Your task to perform on an android device: Empty the shopping cart on walmart.com. Add razer nari to the cart on walmart.com, then select checkout. Image 0: 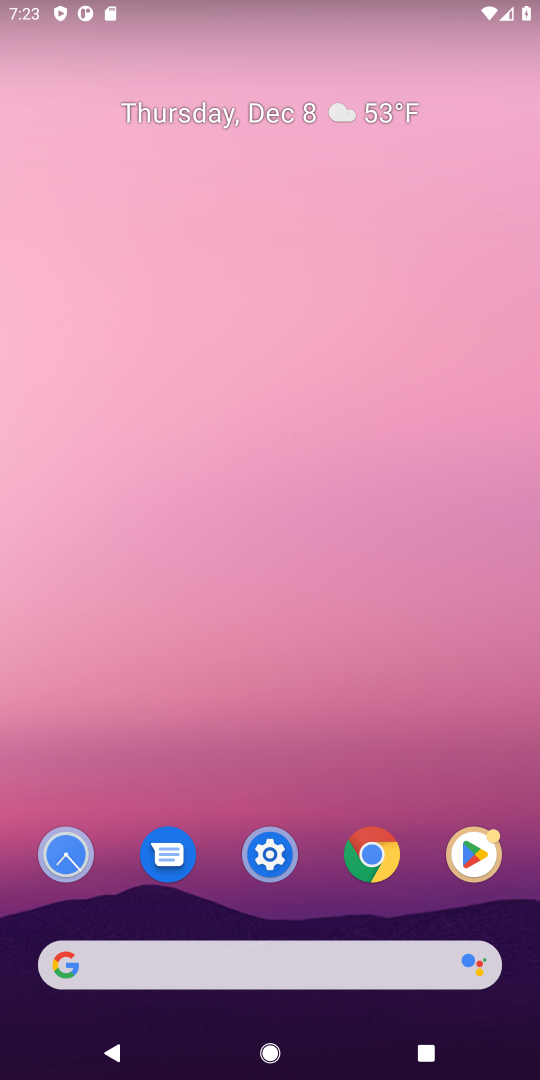
Step 0: press home button
Your task to perform on an android device: Empty the shopping cart on walmart.com. Add razer nari to the cart on walmart.com, then select checkout. Image 1: 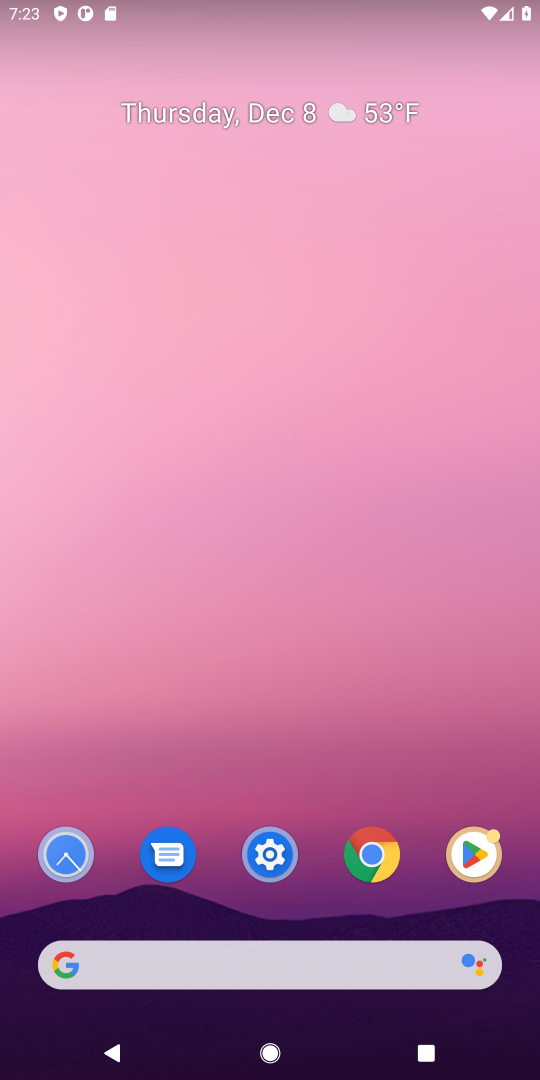
Step 1: click (93, 964)
Your task to perform on an android device: Empty the shopping cart on walmart.com. Add razer nari to the cart on walmart.com, then select checkout. Image 2: 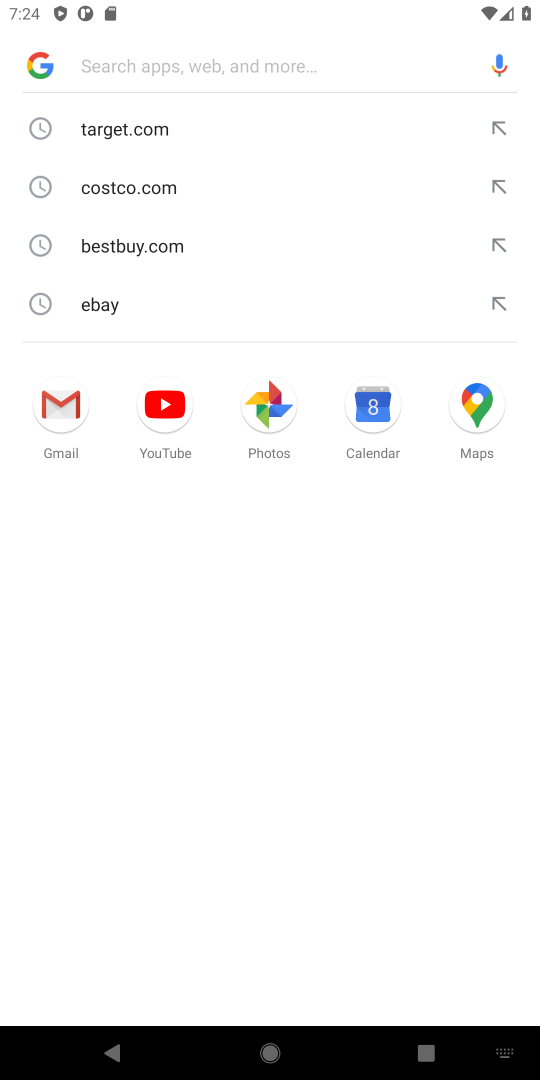
Step 2: type " walmart.com"
Your task to perform on an android device: Empty the shopping cart on walmart.com. Add razer nari to the cart on walmart.com, then select checkout. Image 3: 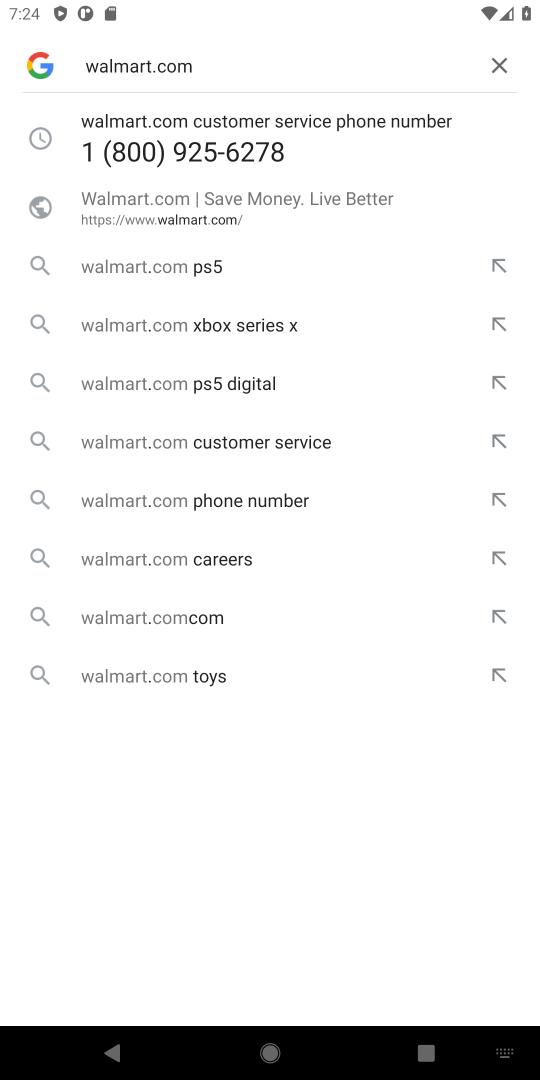
Step 3: press enter
Your task to perform on an android device: Empty the shopping cart on walmart.com. Add razer nari to the cart on walmart.com, then select checkout. Image 4: 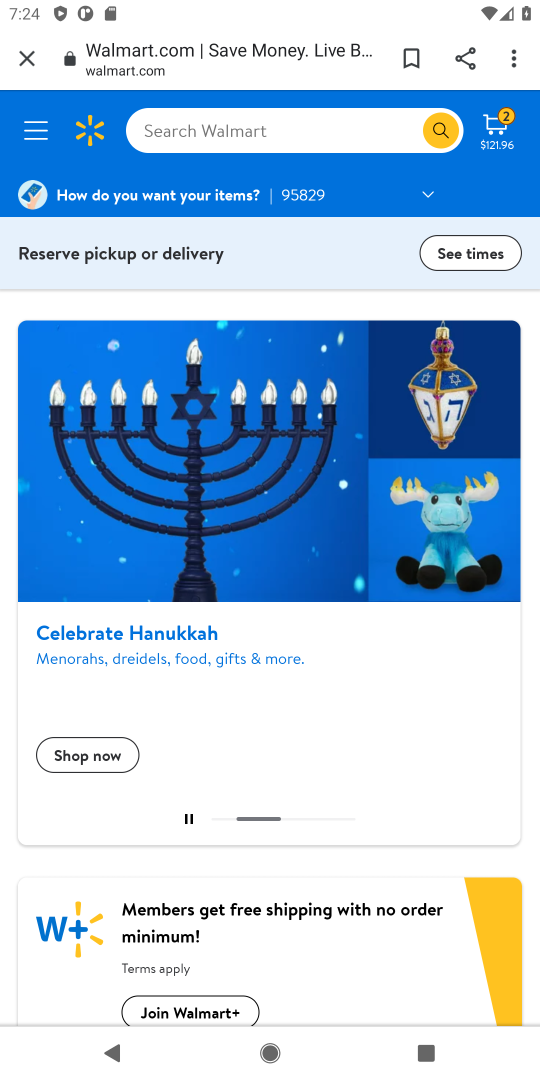
Step 4: click (483, 119)
Your task to perform on an android device: Empty the shopping cart on walmart.com. Add razer nari to the cart on walmart.com, then select checkout. Image 5: 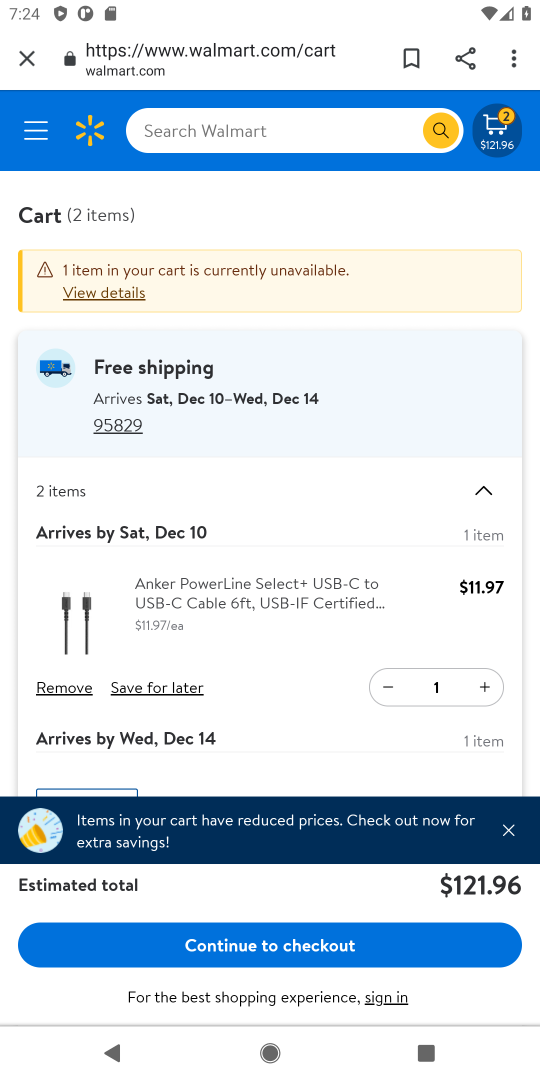
Step 5: click (49, 688)
Your task to perform on an android device: Empty the shopping cart on walmart.com. Add razer nari to the cart on walmart.com, then select checkout. Image 6: 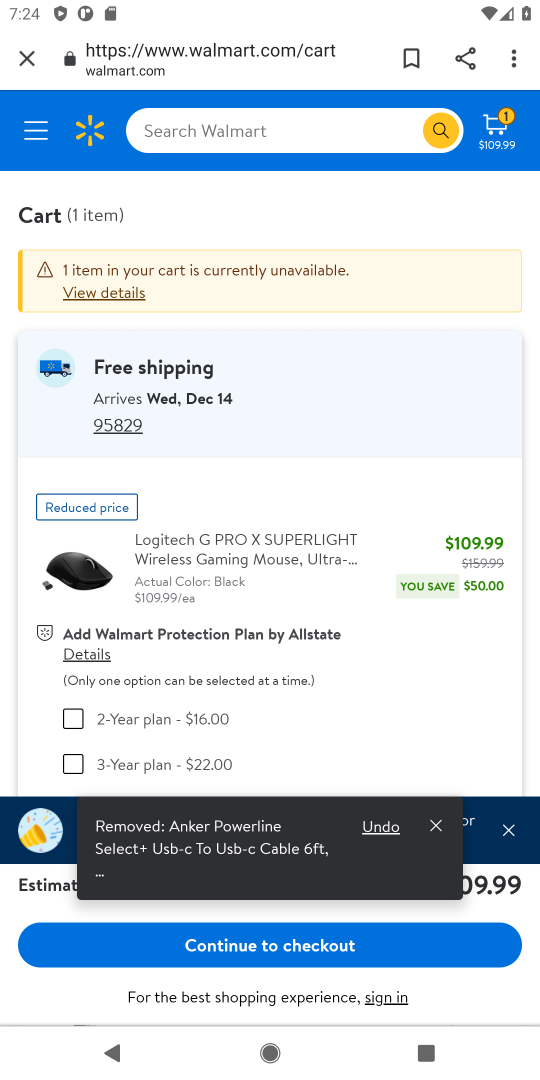
Step 6: drag from (339, 716) to (381, 427)
Your task to perform on an android device: Empty the shopping cart on walmart.com. Add razer nari to the cart on walmart.com, then select checkout. Image 7: 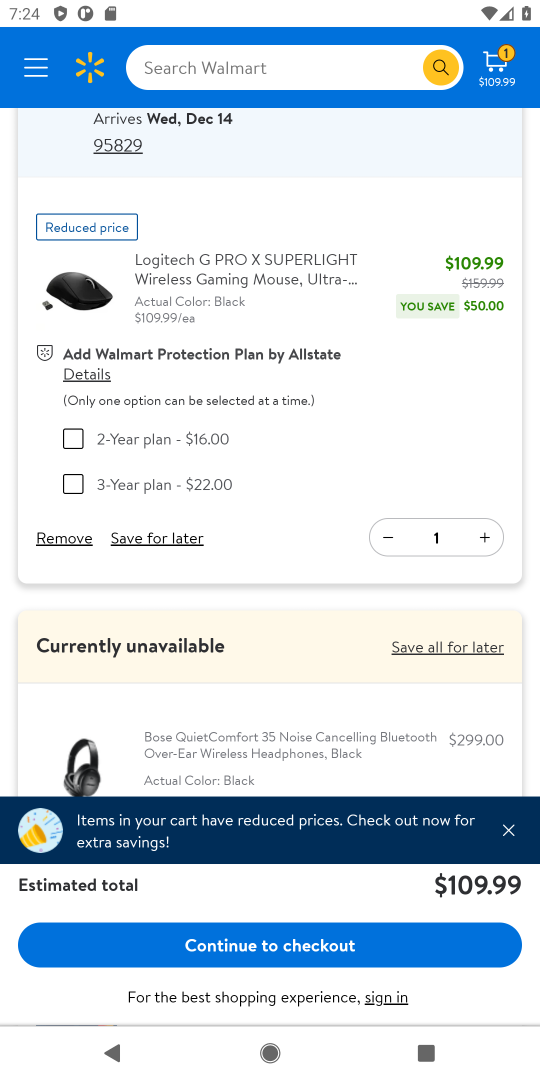
Step 7: click (56, 539)
Your task to perform on an android device: Empty the shopping cart on walmart.com. Add razer nari to the cart on walmart.com, then select checkout. Image 8: 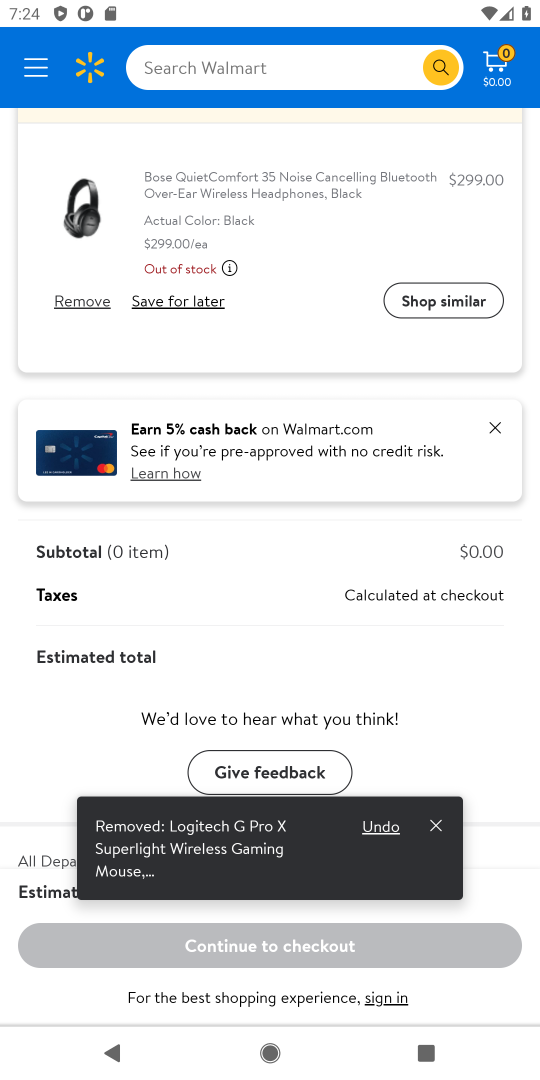
Step 8: click (67, 300)
Your task to perform on an android device: Empty the shopping cart on walmart.com. Add razer nari to the cart on walmart.com, then select checkout. Image 9: 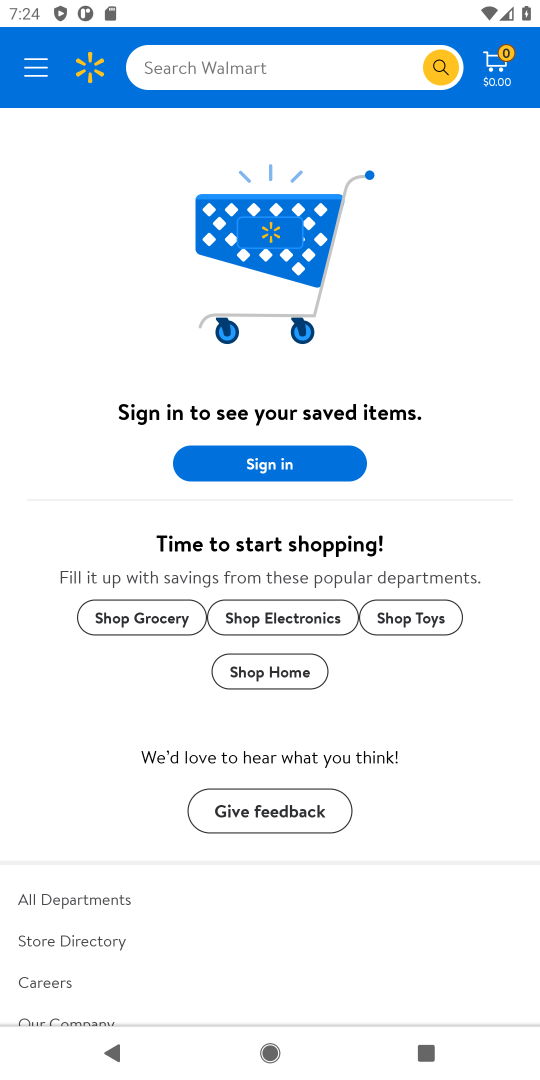
Step 9: click (189, 70)
Your task to perform on an android device: Empty the shopping cart on walmart.com. Add razer nari to the cart on walmart.com, then select checkout. Image 10: 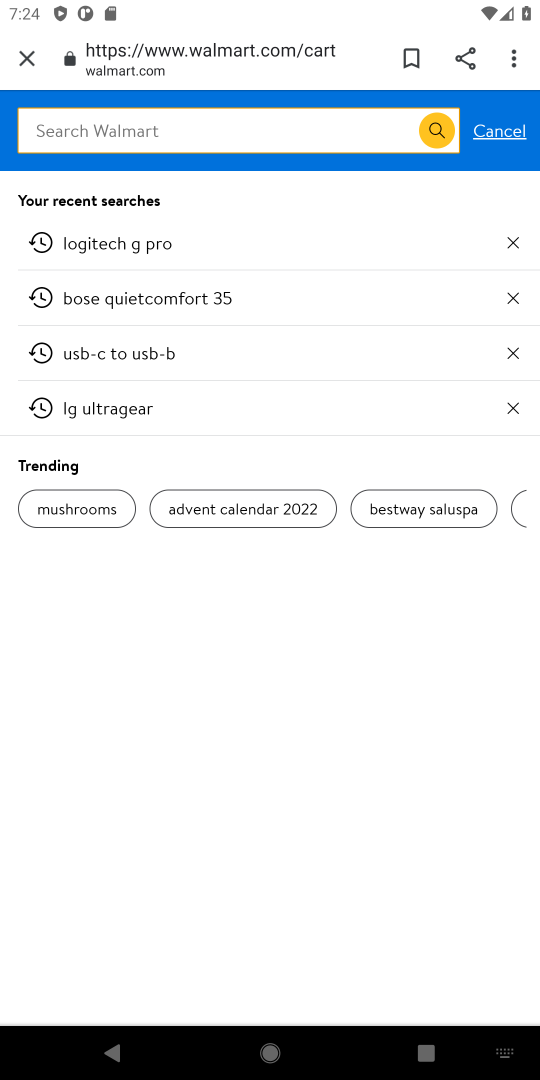
Step 10: type "razer nari "
Your task to perform on an android device: Empty the shopping cart on walmart.com. Add razer nari to the cart on walmart.com, then select checkout. Image 11: 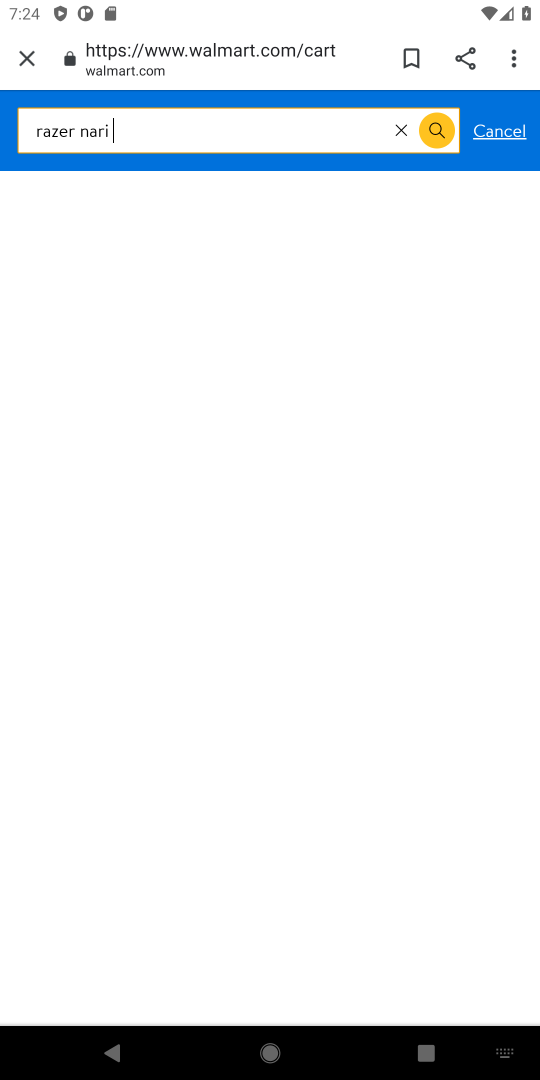
Step 11: press enter
Your task to perform on an android device: Empty the shopping cart on walmart.com. Add razer nari to the cart on walmart.com, then select checkout. Image 12: 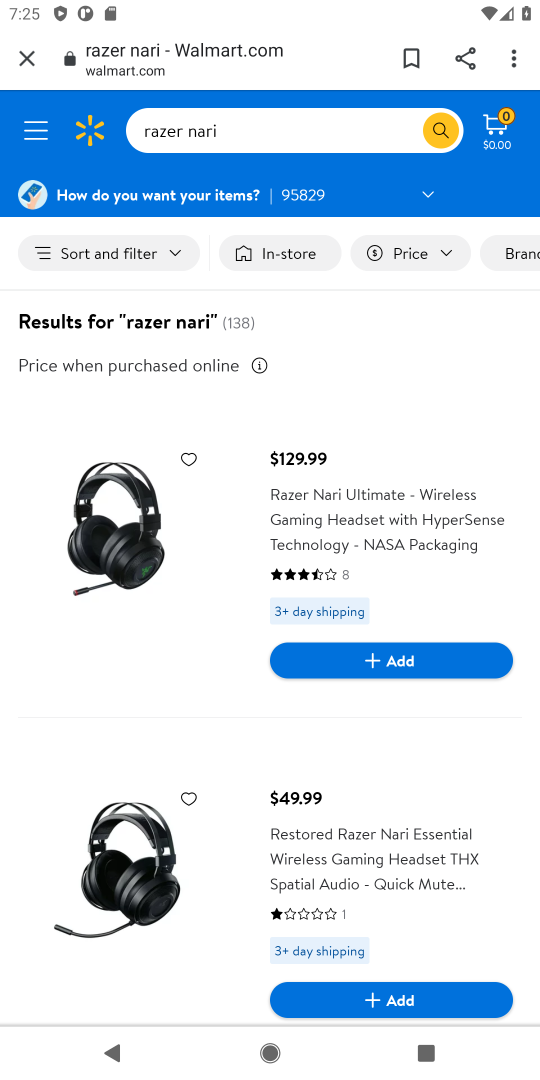
Step 12: click (397, 657)
Your task to perform on an android device: Empty the shopping cart on walmart.com. Add razer nari to the cart on walmart.com, then select checkout. Image 13: 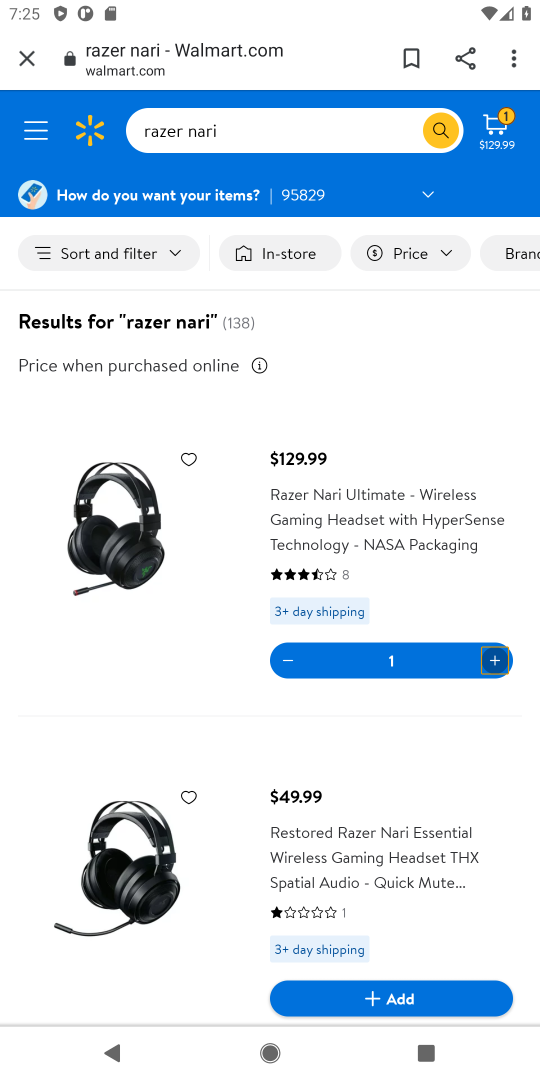
Step 13: click (491, 119)
Your task to perform on an android device: Empty the shopping cart on walmart.com. Add razer nari to the cart on walmart.com, then select checkout. Image 14: 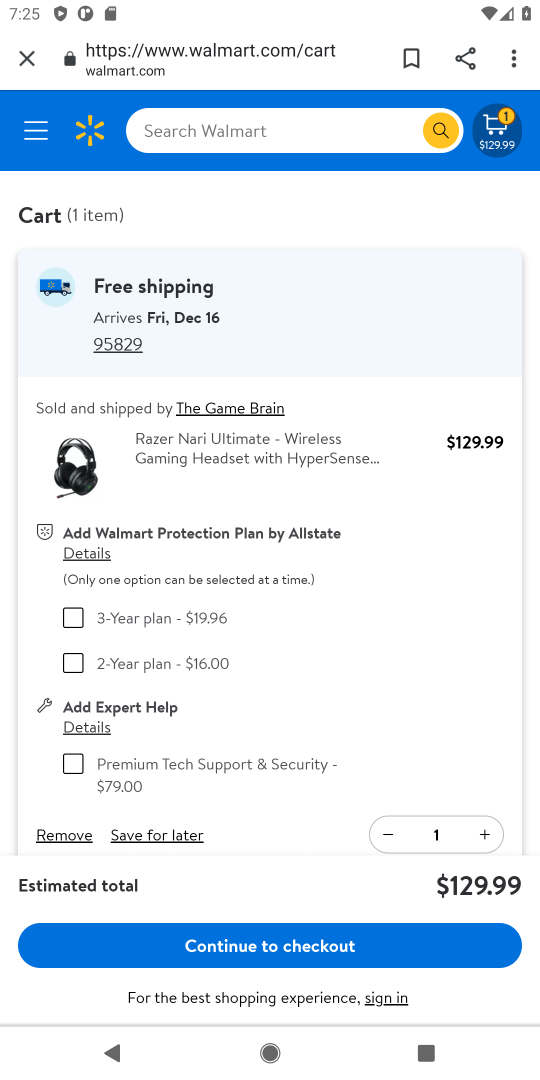
Step 14: click (285, 952)
Your task to perform on an android device: Empty the shopping cart on walmart.com. Add razer nari to the cart on walmart.com, then select checkout. Image 15: 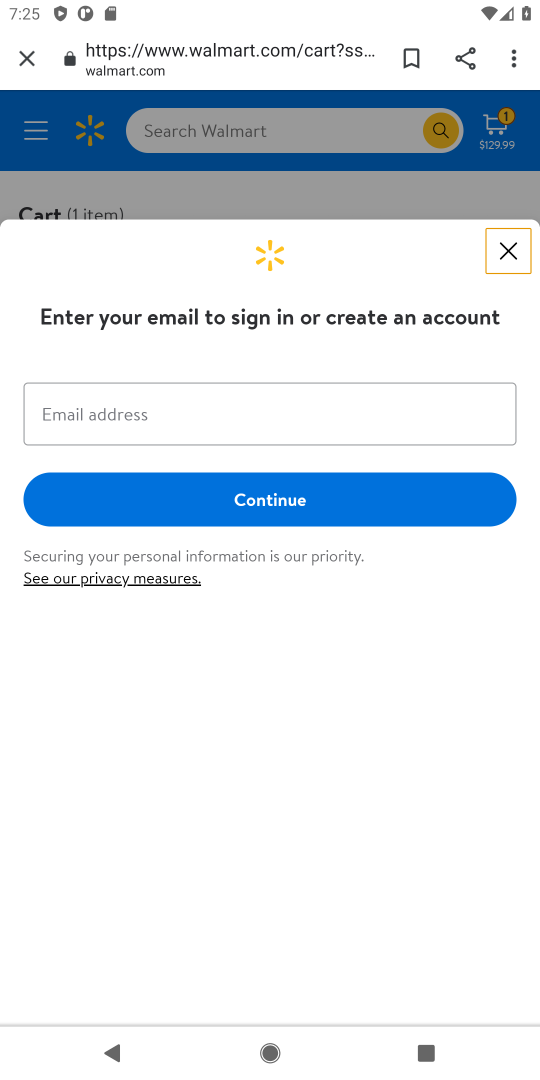
Step 15: task complete